Your task to perform on an android device: Find coffee shops on Maps Image 0: 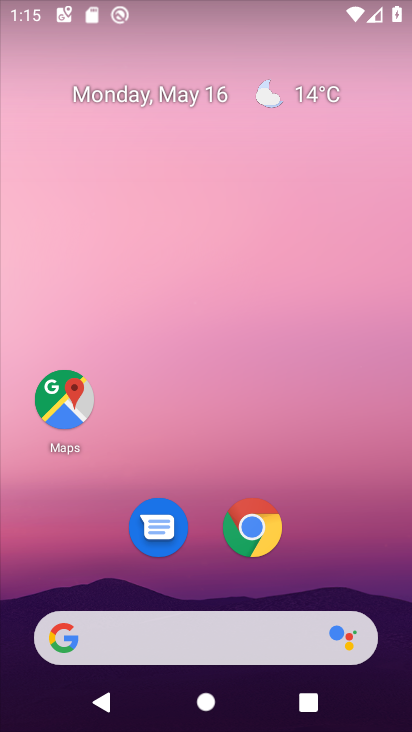
Step 0: click (68, 408)
Your task to perform on an android device: Find coffee shops on Maps Image 1: 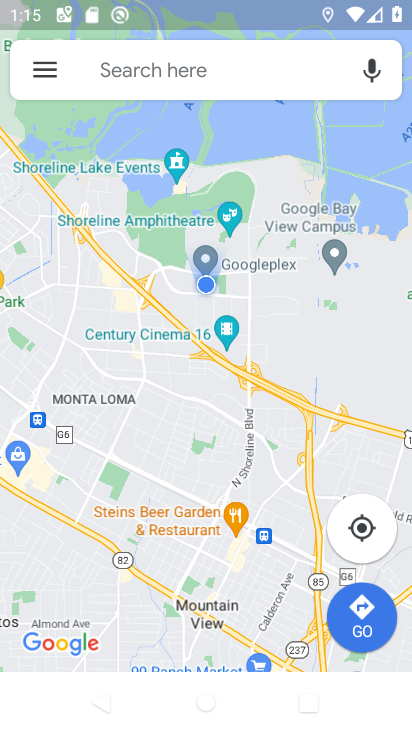
Step 1: click (213, 73)
Your task to perform on an android device: Find coffee shops on Maps Image 2: 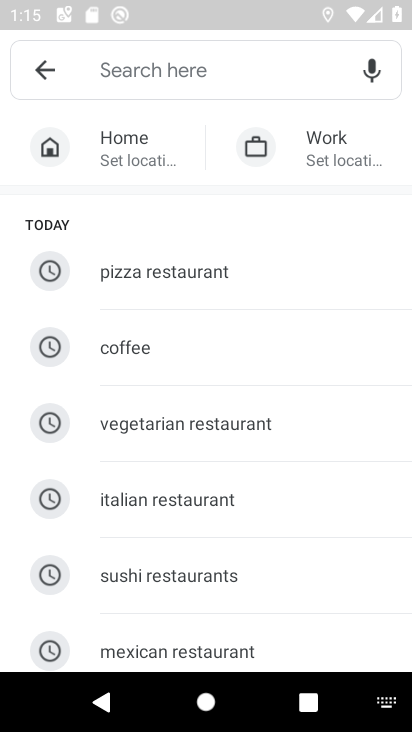
Step 2: type "coffee shops"
Your task to perform on an android device: Find coffee shops on Maps Image 3: 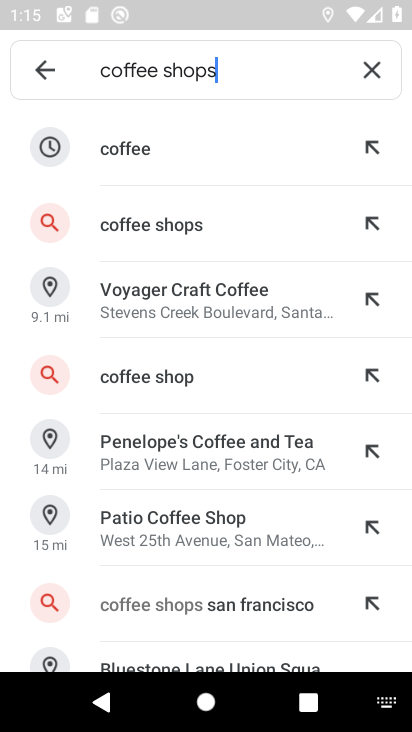
Step 3: click (196, 239)
Your task to perform on an android device: Find coffee shops on Maps Image 4: 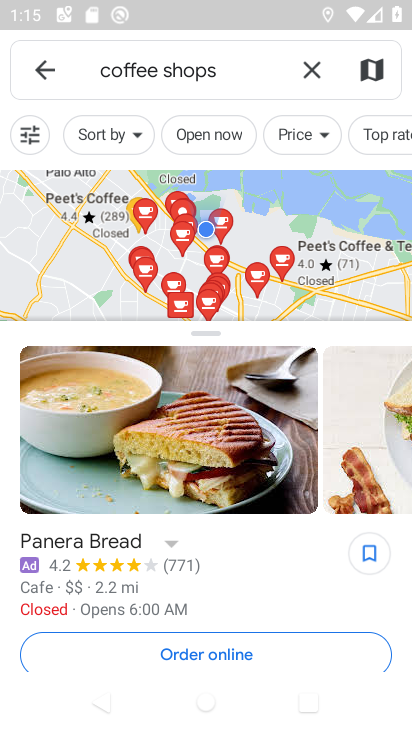
Step 4: task complete